Your task to perform on an android device: Empty the shopping cart on costco. Search for "jbl charge 4" on costco, select the first entry, and add it to the cart. Image 0: 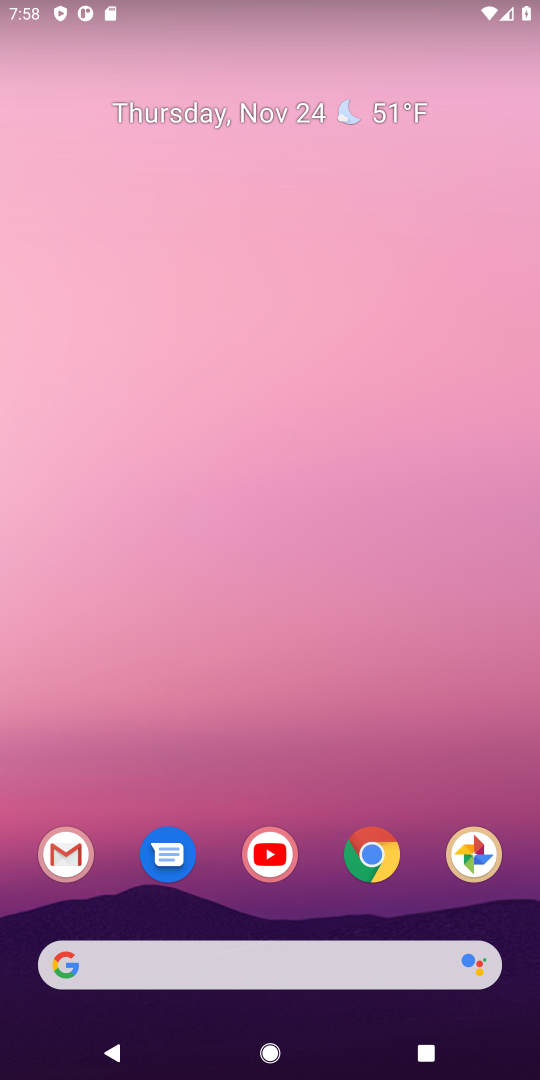
Step 0: click (381, 853)
Your task to perform on an android device: Empty the shopping cart on costco. Search for "jbl charge 4" on costco, select the first entry, and add it to the cart. Image 1: 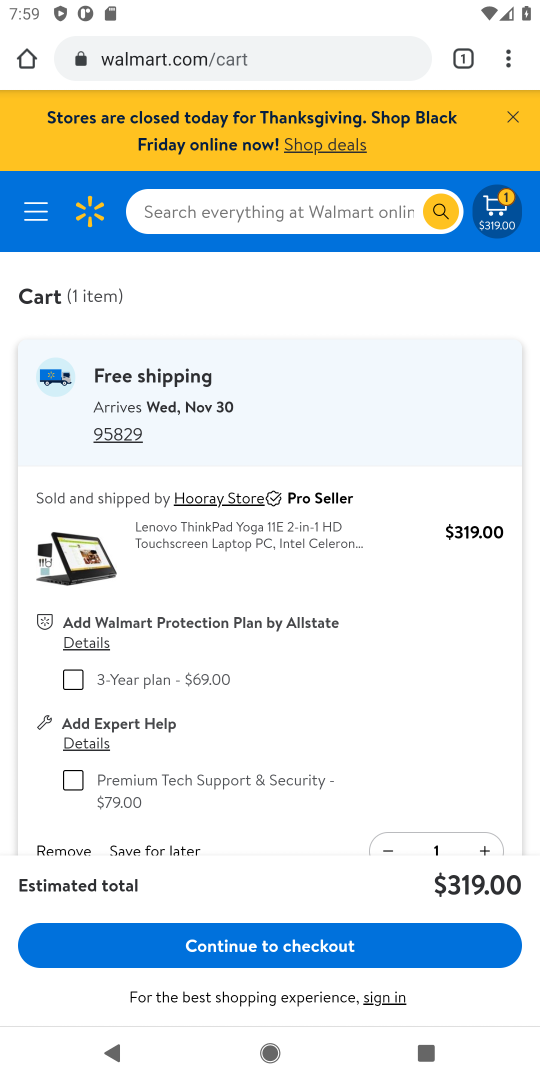
Step 1: click (210, 61)
Your task to perform on an android device: Empty the shopping cart on costco. Search for "jbl charge 4" on costco, select the first entry, and add it to the cart. Image 2: 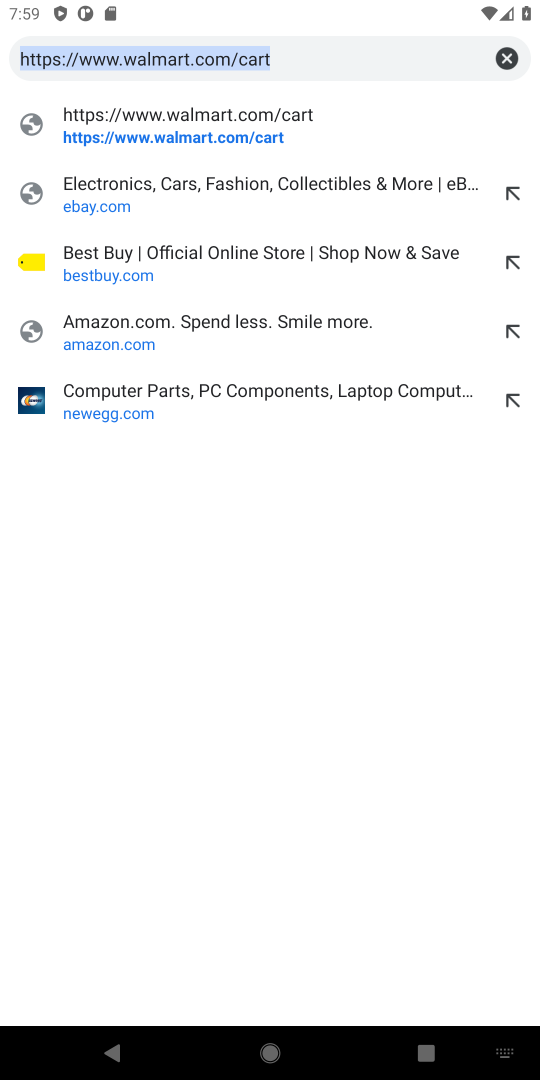
Step 2: type "costco.com"
Your task to perform on an android device: Empty the shopping cart on costco. Search for "jbl charge 4" on costco, select the first entry, and add it to the cart. Image 3: 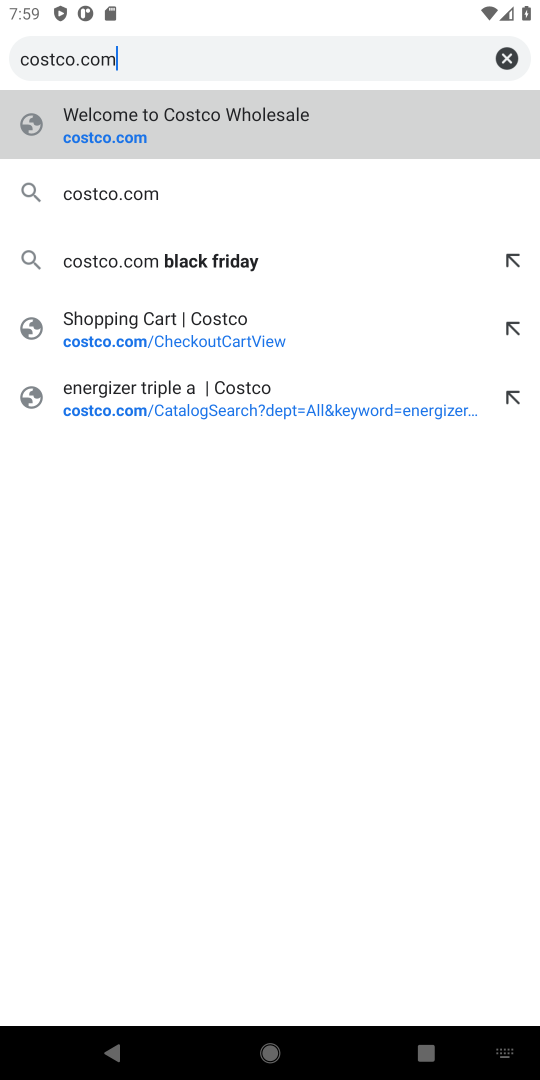
Step 3: click (78, 139)
Your task to perform on an android device: Empty the shopping cart on costco. Search for "jbl charge 4" on costco, select the first entry, and add it to the cart. Image 4: 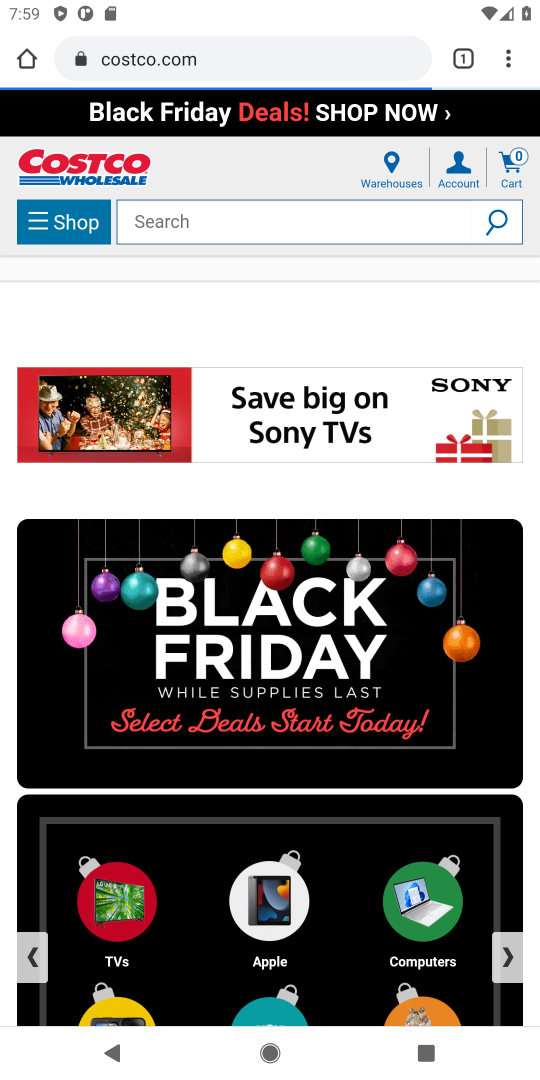
Step 4: click (509, 162)
Your task to perform on an android device: Empty the shopping cart on costco. Search for "jbl charge 4" on costco, select the first entry, and add it to the cart. Image 5: 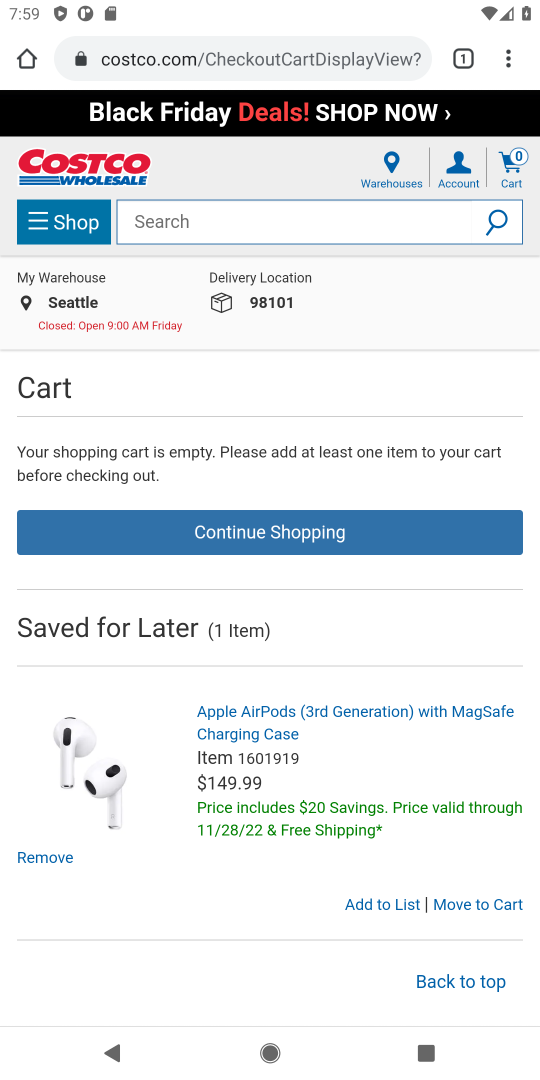
Step 5: click (309, 219)
Your task to perform on an android device: Empty the shopping cart on costco. Search for "jbl charge 4" on costco, select the first entry, and add it to the cart. Image 6: 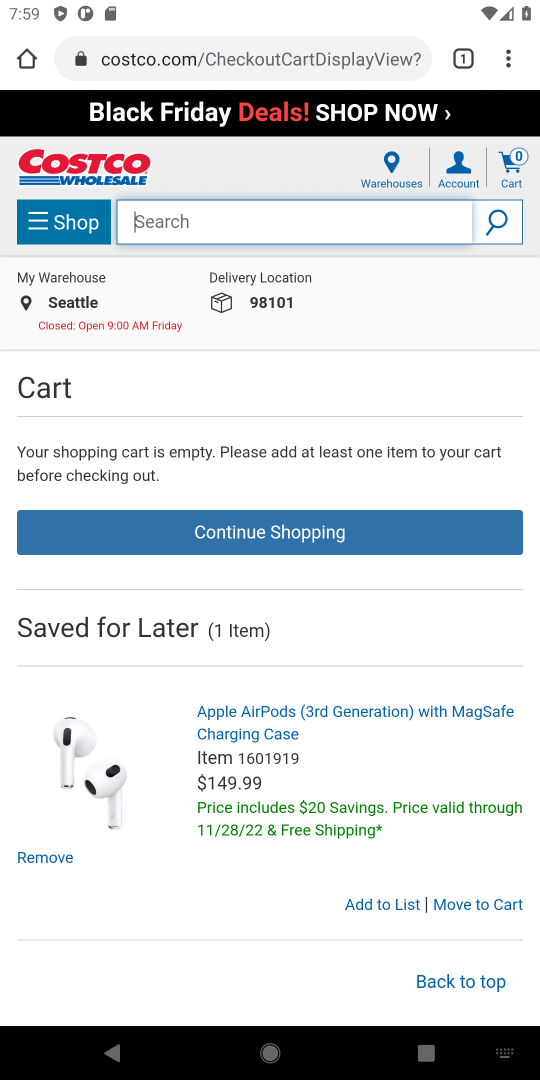
Step 6: type "jbl charge 4"
Your task to perform on an android device: Empty the shopping cart on costco. Search for "jbl charge 4" on costco, select the first entry, and add it to the cart. Image 7: 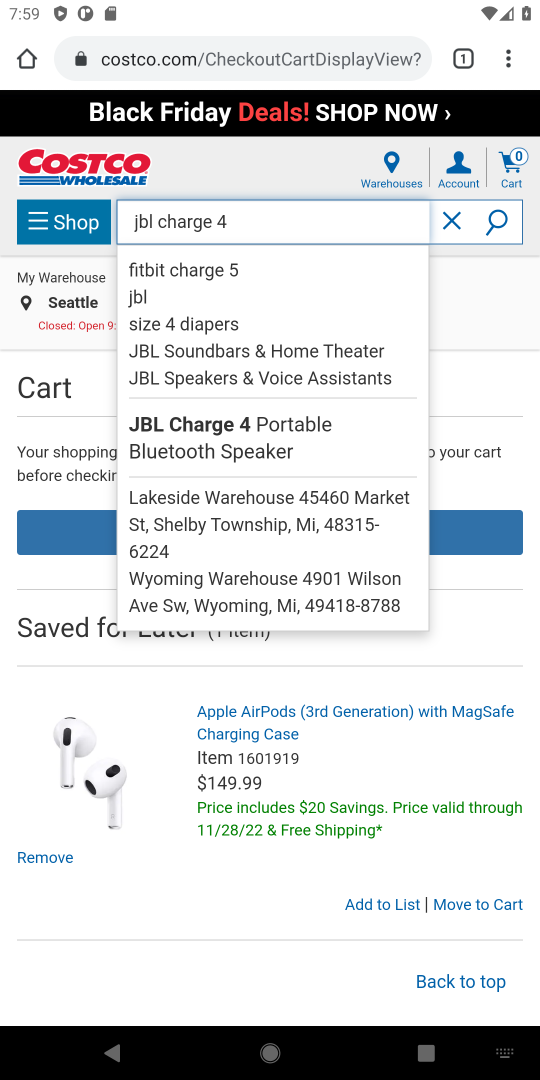
Step 7: click (502, 214)
Your task to perform on an android device: Empty the shopping cart on costco. Search for "jbl charge 4" on costco, select the first entry, and add it to the cart. Image 8: 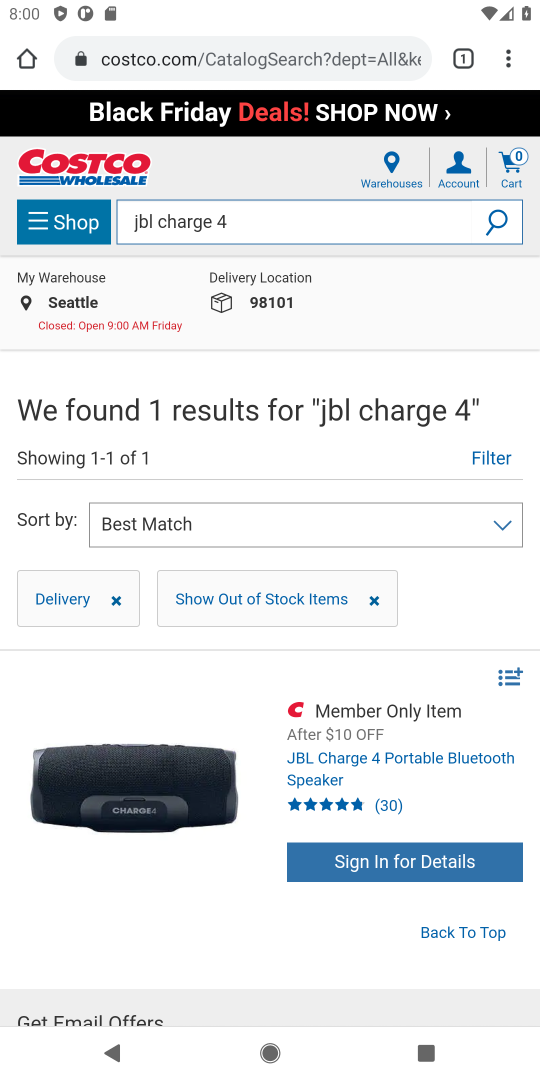
Step 8: task complete